Your task to perform on an android device: Search for a new foundation (skincare) product Image 0: 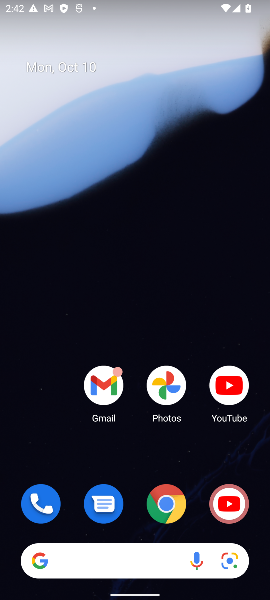
Step 0: drag from (75, 469) to (6, 96)
Your task to perform on an android device: Search for a new foundation (skincare) product Image 1: 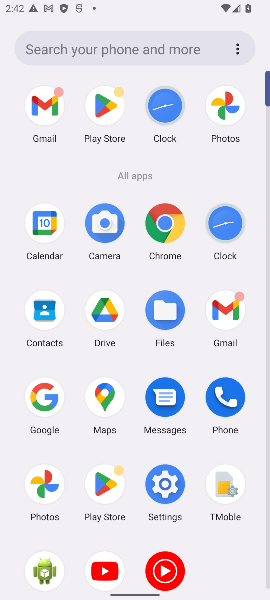
Step 1: click (170, 217)
Your task to perform on an android device: Search for a new foundation (skincare) product Image 2: 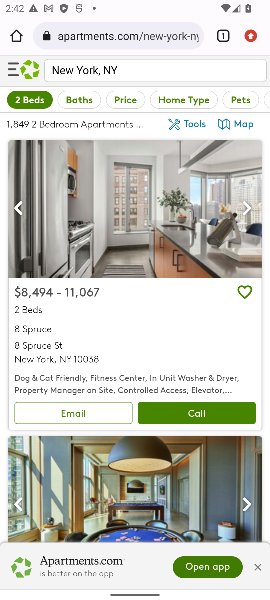
Step 2: click (131, 28)
Your task to perform on an android device: Search for a new foundation (skincare) product Image 3: 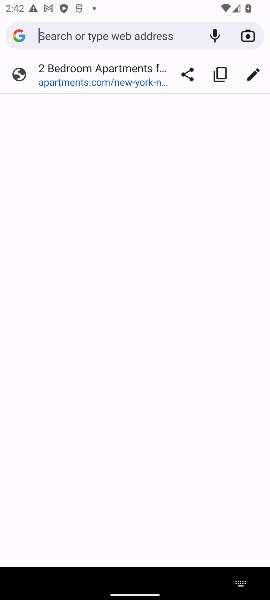
Step 3: type "Search for a new foundation (skincare) product"
Your task to perform on an android device: Search for a new foundation (skincare) product Image 4: 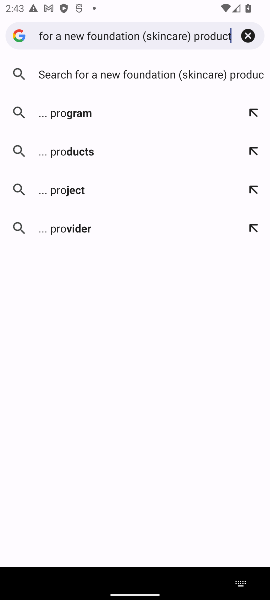
Step 4: press enter
Your task to perform on an android device: Search for a new foundation (skincare) product Image 5: 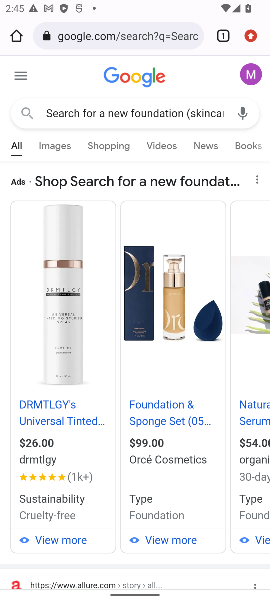
Step 5: task complete